Your task to perform on an android device: Clear the cart on ebay.com. Add "logitech g pro" to the cart on ebay.com, then select checkout. Image 0: 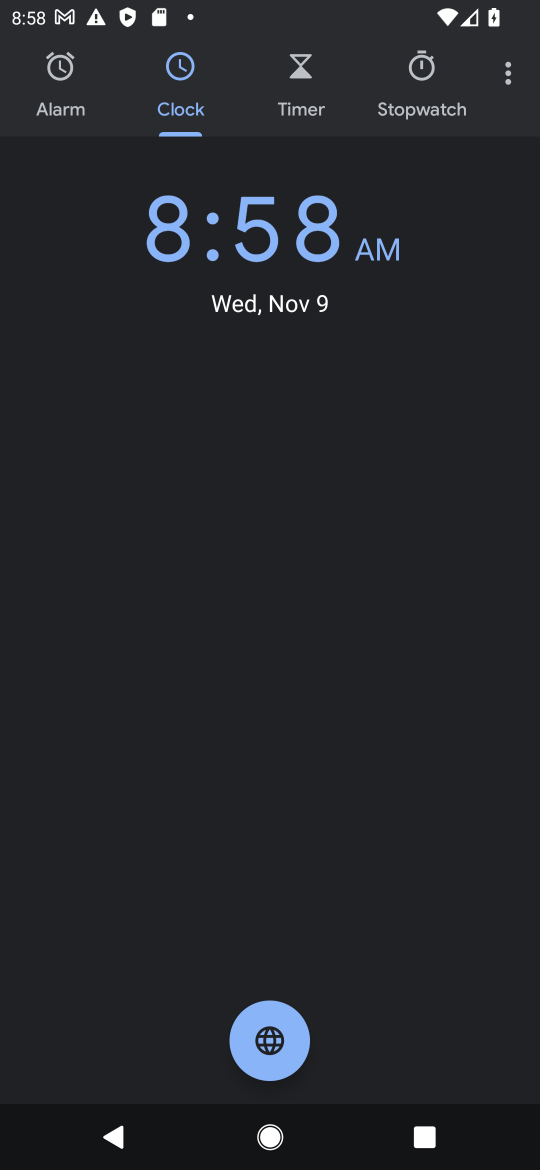
Step 0: press home button
Your task to perform on an android device: Clear the cart on ebay.com. Add "logitech g pro" to the cart on ebay.com, then select checkout. Image 1: 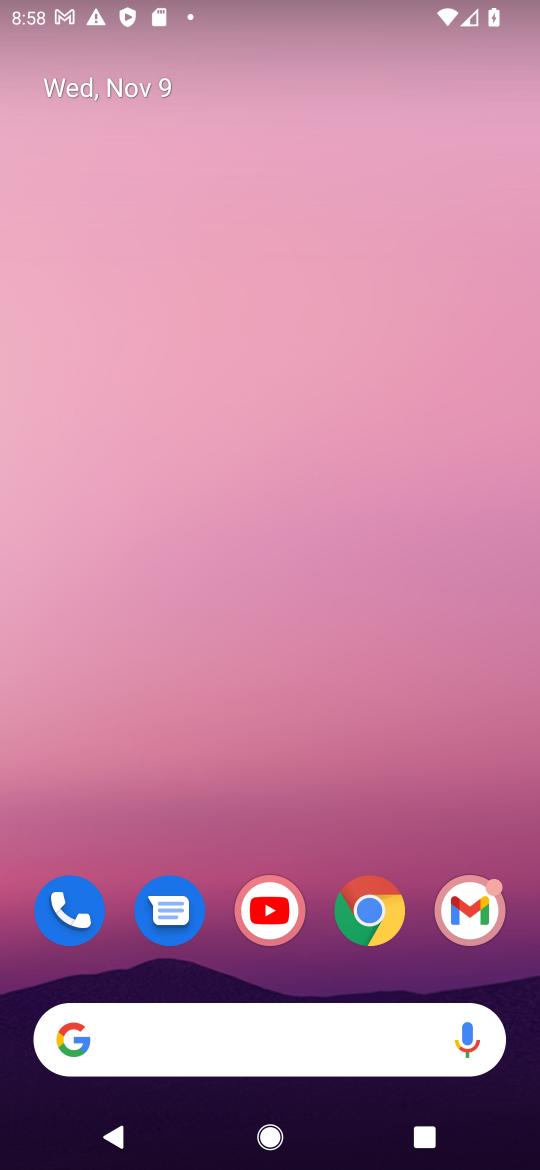
Step 1: click (378, 912)
Your task to perform on an android device: Clear the cart on ebay.com. Add "logitech g pro" to the cart on ebay.com, then select checkout. Image 2: 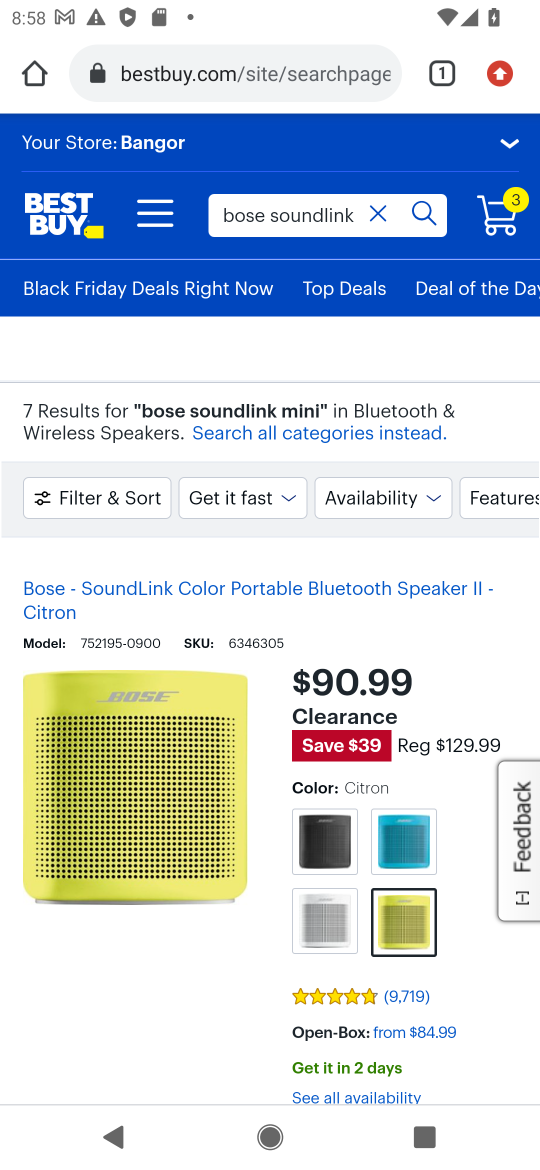
Step 2: click (205, 80)
Your task to perform on an android device: Clear the cart on ebay.com. Add "logitech g pro" to the cart on ebay.com, then select checkout. Image 3: 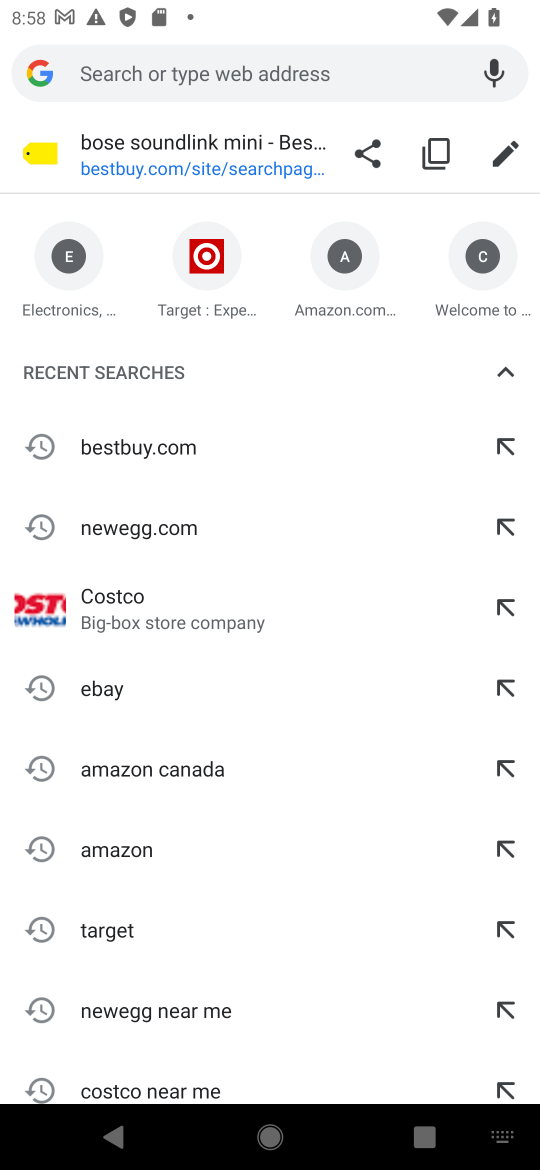
Step 3: type "ebay.com"
Your task to perform on an android device: Clear the cart on ebay.com. Add "logitech g pro" to the cart on ebay.com, then select checkout. Image 4: 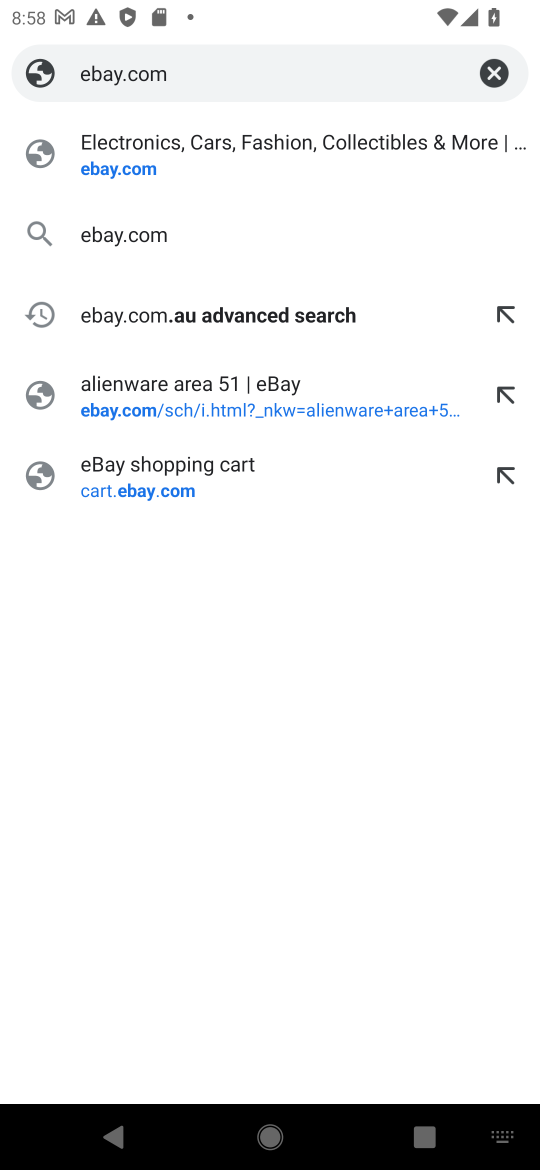
Step 4: click (128, 164)
Your task to perform on an android device: Clear the cart on ebay.com. Add "logitech g pro" to the cart on ebay.com, then select checkout. Image 5: 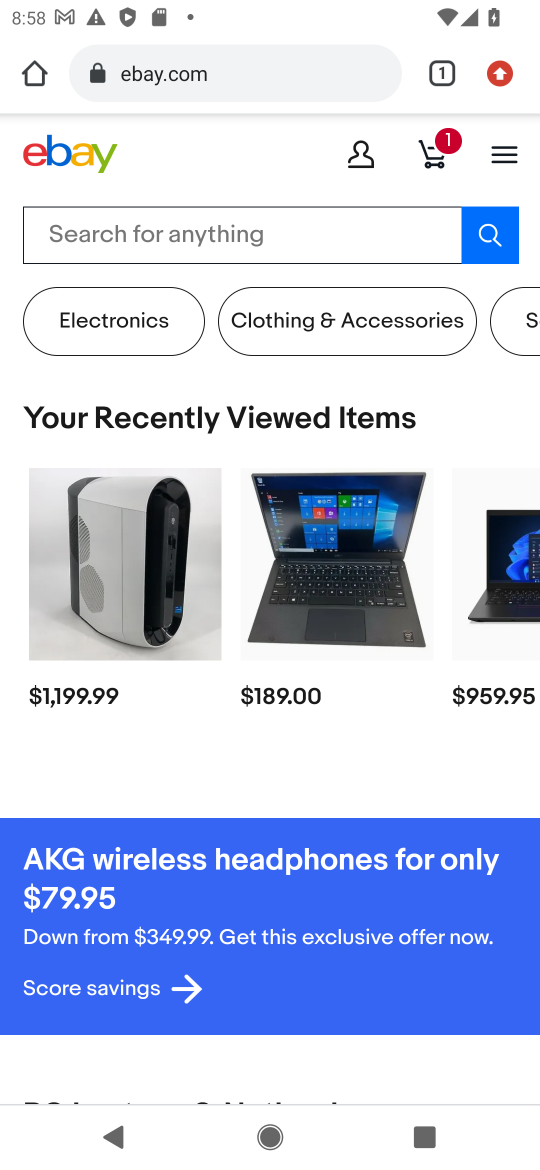
Step 5: click (427, 139)
Your task to perform on an android device: Clear the cart on ebay.com. Add "logitech g pro" to the cart on ebay.com, then select checkout. Image 6: 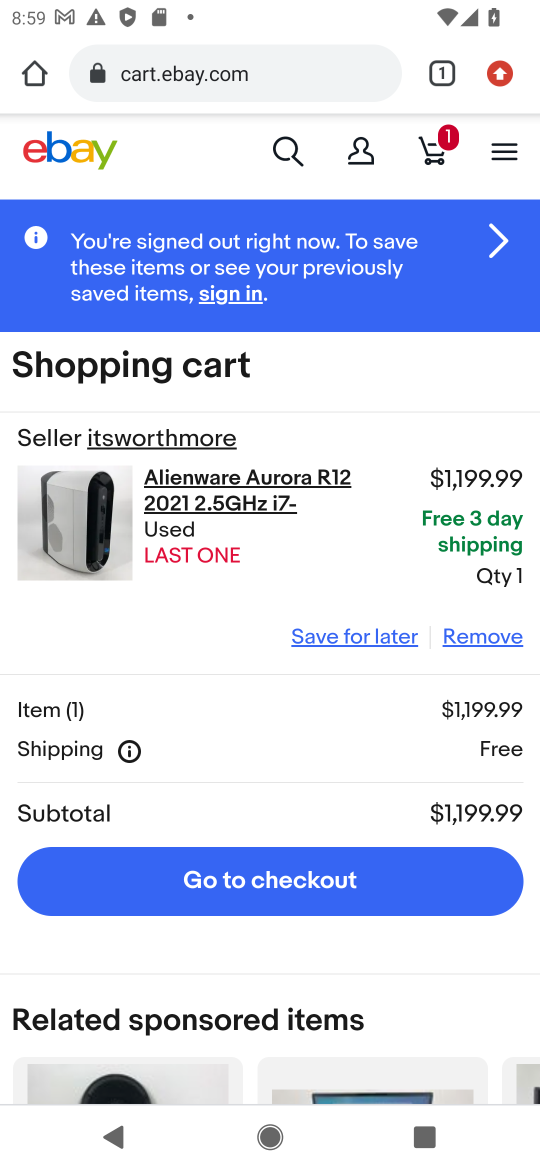
Step 6: click (492, 622)
Your task to perform on an android device: Clear the cart on ebay.com. Add "logitech g pro" to the cart on ebay.com, then select checkout. Image 7: 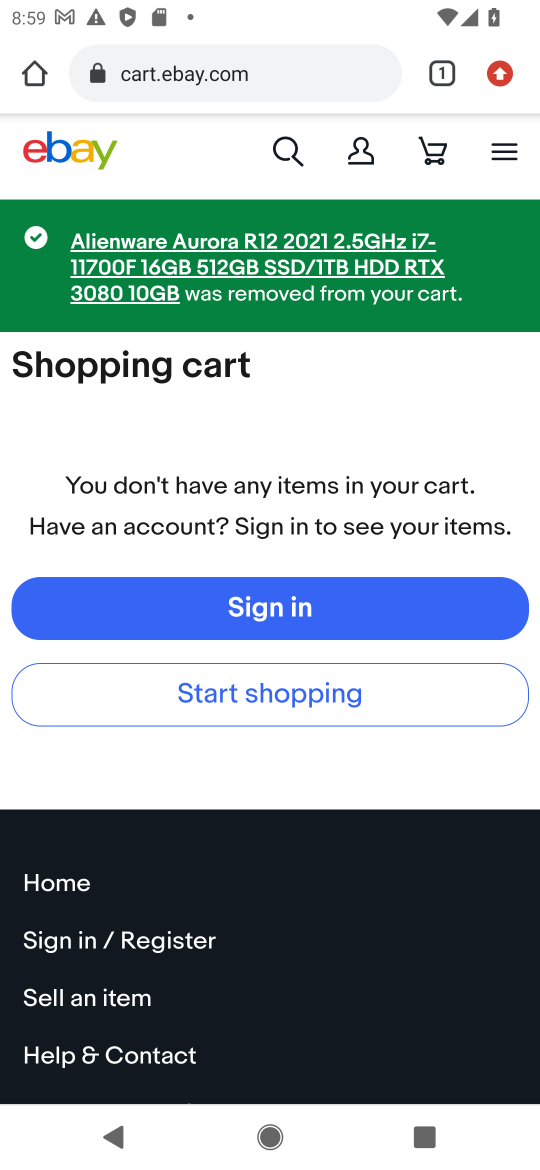
Step 7: click (301, 146)
Your task to perform on an android device: Clear the cart on ebay.com. Add "logitech g pro" to the cart on ebay.com, then select checkout. Image 8: 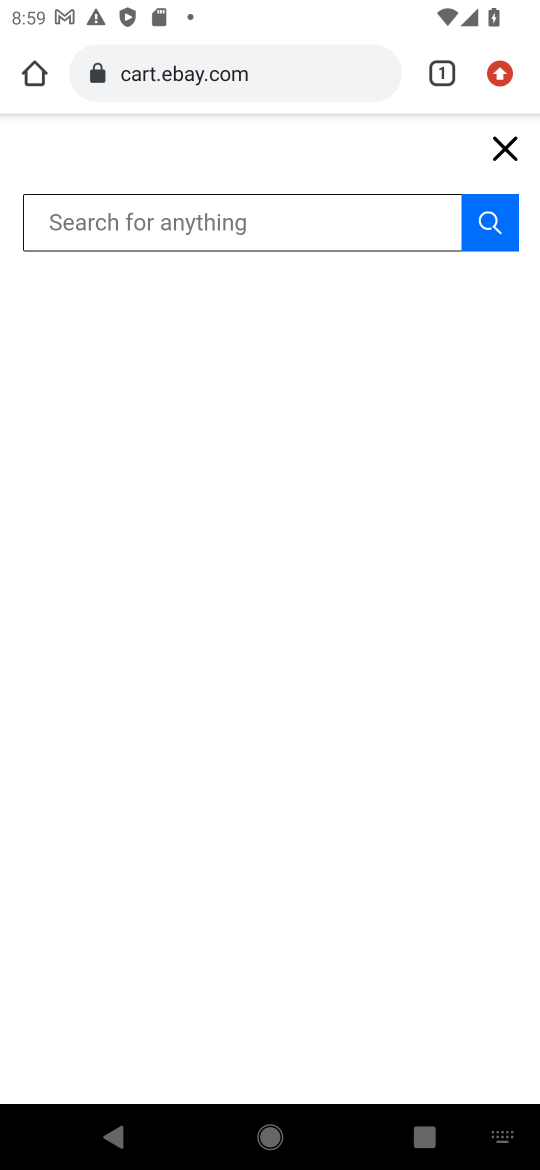
Step 8: type "logitech g pro"
Your task to perform on an android device: Clear the cart on ebay.com. Add "logitech g pro" to the cart on ebay.com, then select checkout. Image 9: 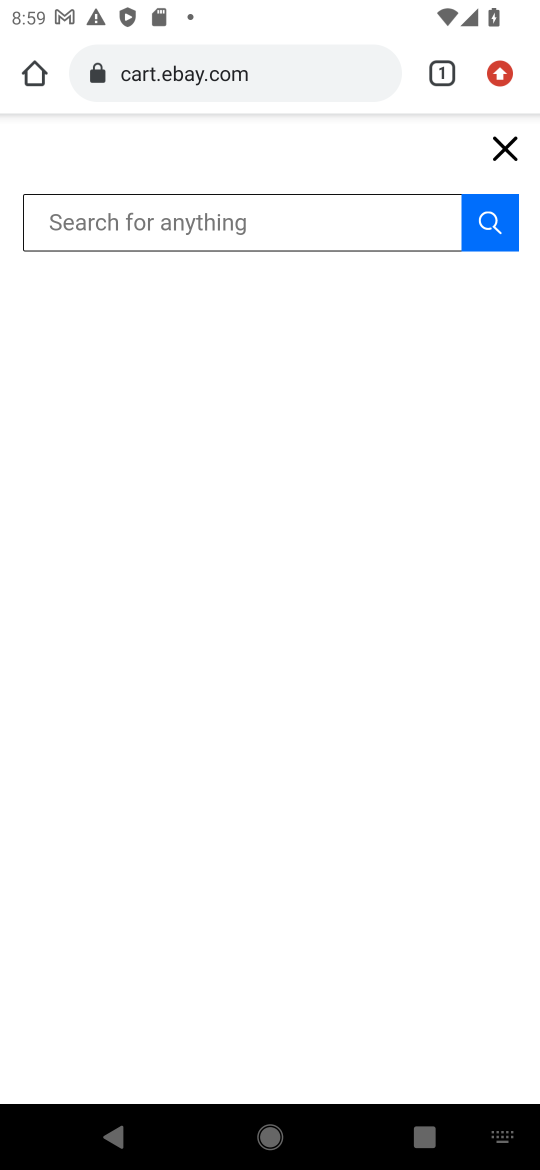
Step 9: click (147, 227)
Your task to perform on an android device: Clear the cart on ebay.com. Add "logitech g pro" to the cart on ebay.com, then select checkout. Image 10: 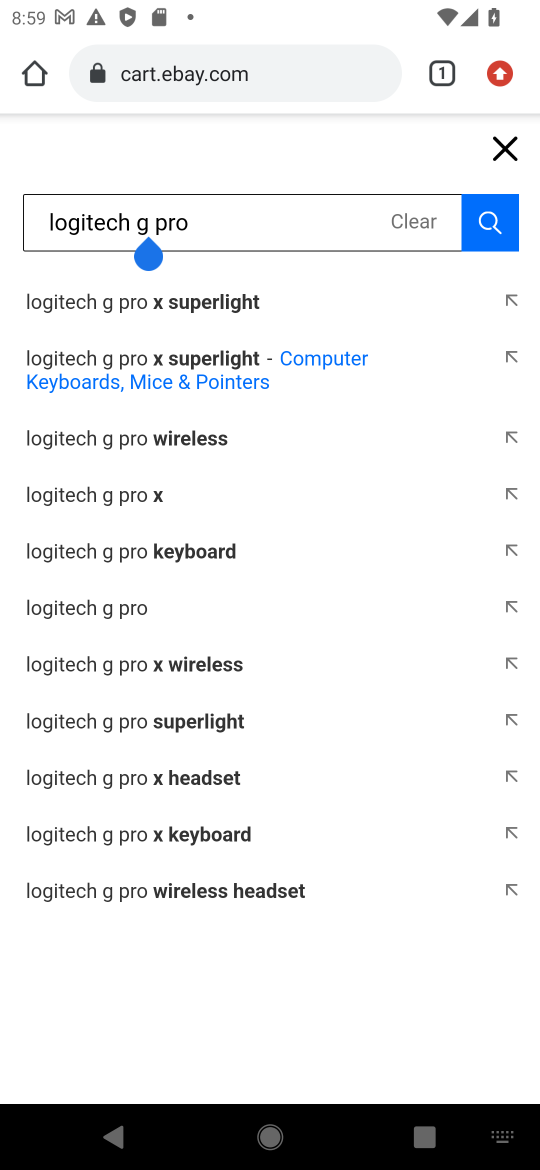
Step 10: click (99, 597)
Your task to perform on an android device: Clear the cart on ebay.com. Add "logitech g pro" to the cart on ebay.com, then select checkout. Image 11: 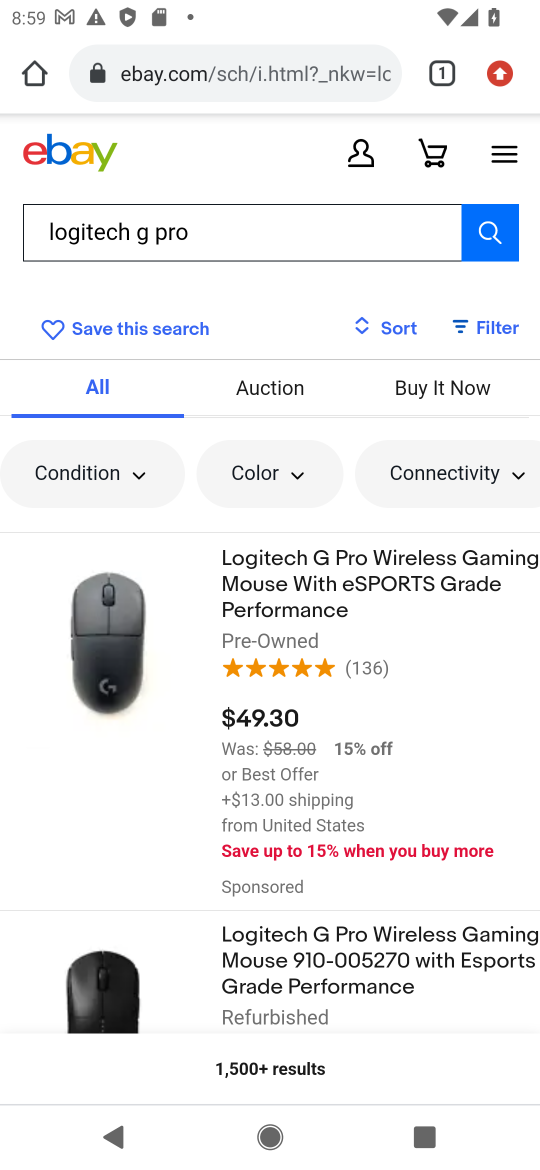
Step 11: click (149, 621)
Your task to perform on an android device: Clear the cart on ebay.com. Add "logitech g pro" to the cart on ebay.com, then select checkout. Image 12: 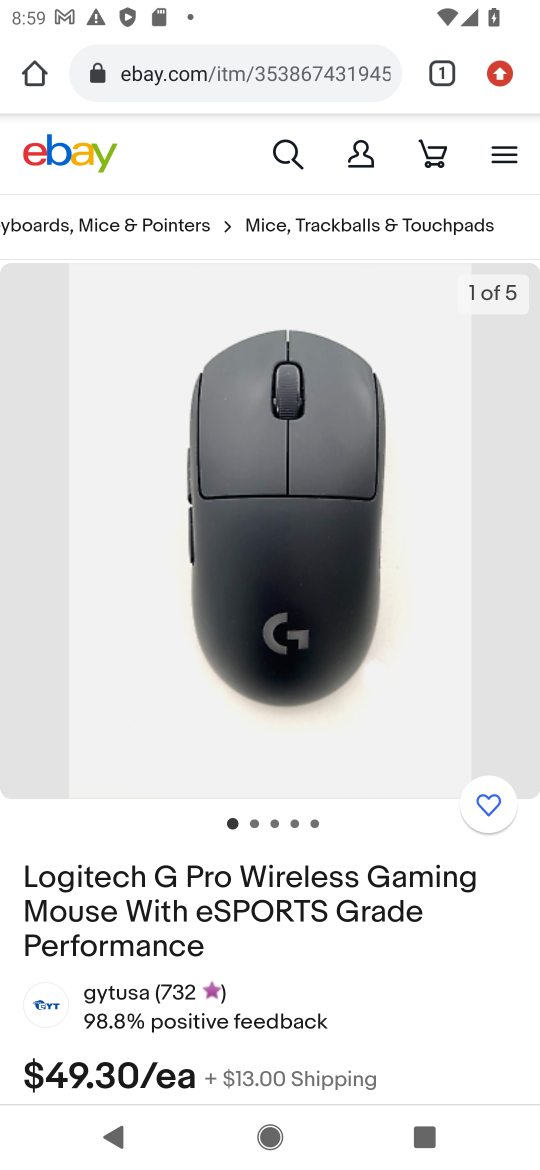
Step 12: drag from (228, 825) to (255, 247)
Your task to perform on an android device: Clear the cart on ebay.com. Add "logitech g pro" to the cart on ebay.com, then select checkout. Image 13: 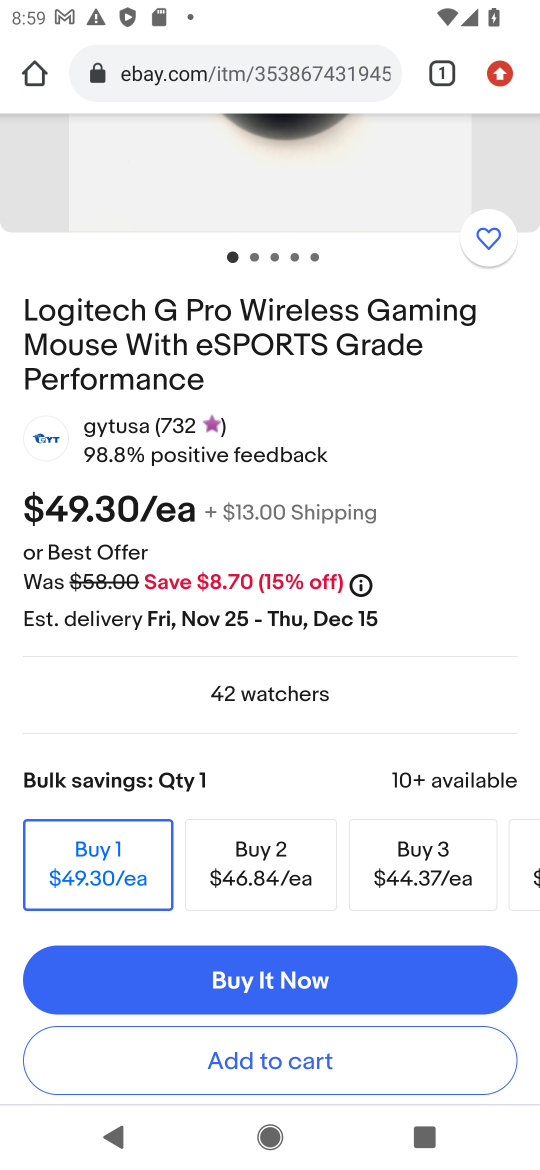
Step 13: drag from (257, 741) to (261, 323)
Your task to perform on an android device: Clear the cart on ebay.com. Add "logitech g pro" to the cart on ebay.com, then select checkout. Image 14: 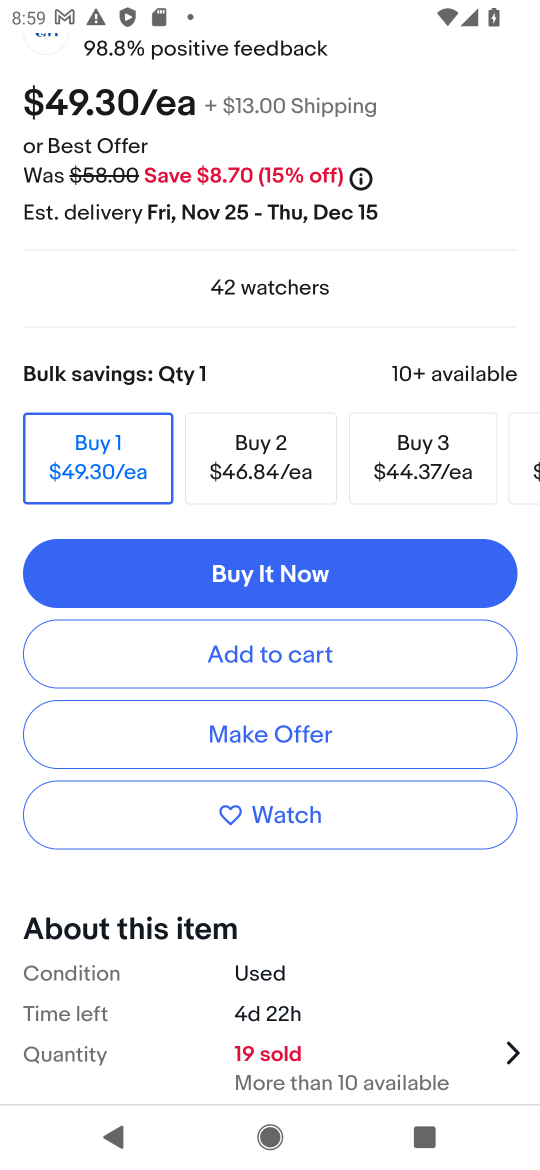
Step 14: click (252, 656)
Your task to perform on an android device: Clear the cart on ebay.com. Add "logitech g pro" to the cart on ebay.com, then select checkout. Image 15: 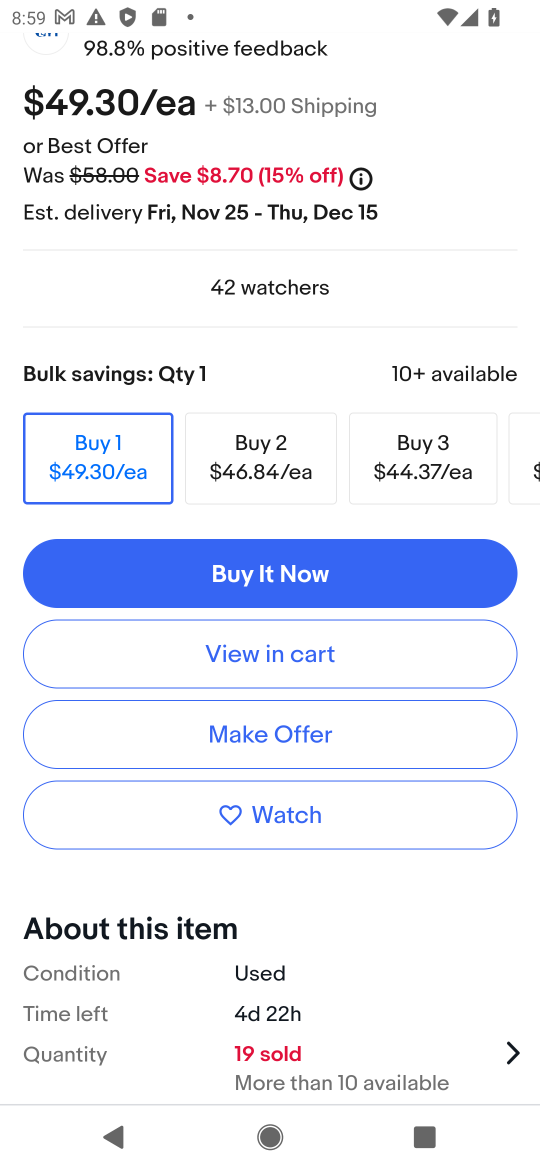
Step 15: click (252, 654)
Your task to perform on an android device: Clear the cart on ebay.com. Add "logitech g pro" to the cart on ebay.com, then select checkout. Image 16: 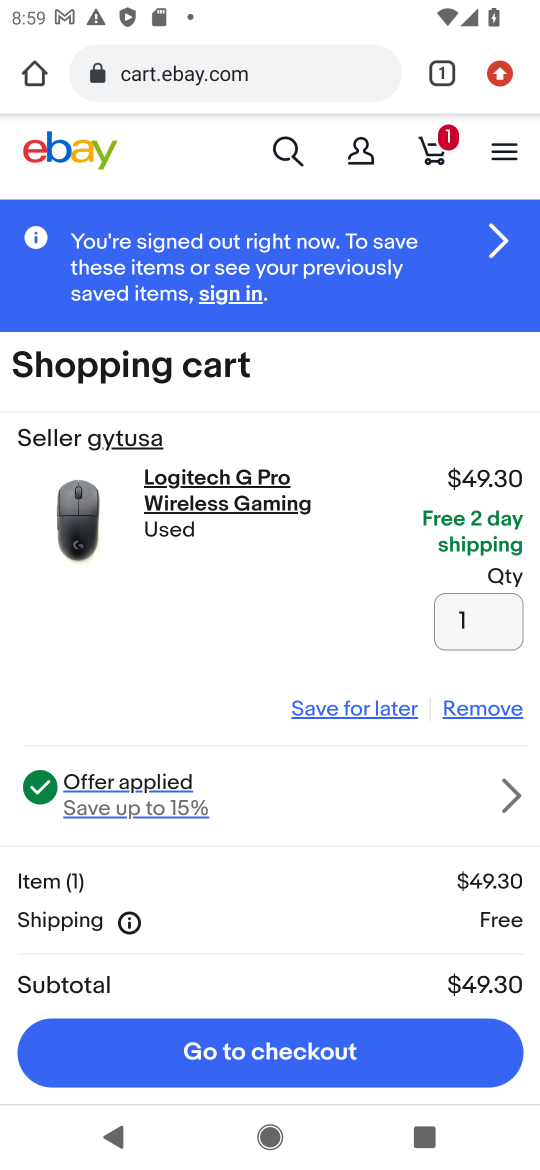
Step 16: click (246, 1035)
Your task to perform on an android device: Clear the cart on ebay.com. Add "logitech g pro" to the cart on ebay.com, then select checkout. Image 17: 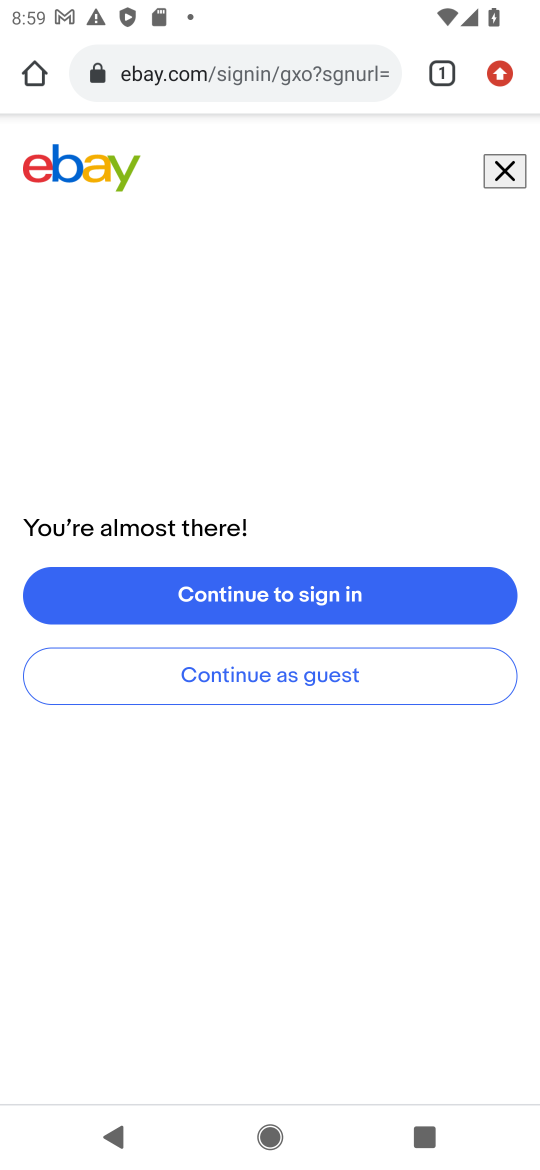
Step 17: task complete